Your task to perform on an android device: turn on bluetooth scan Image 0: 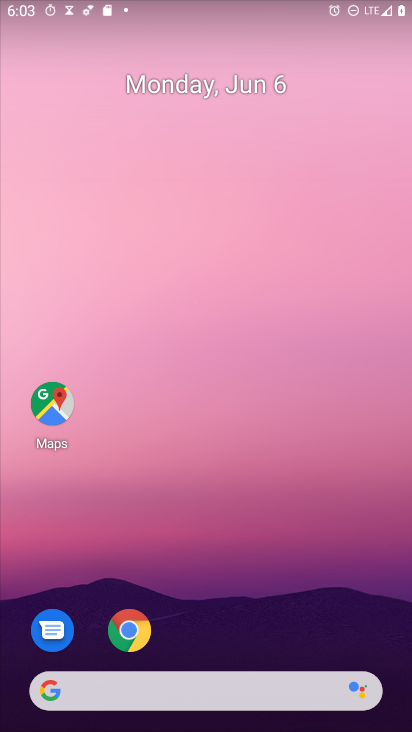
Step 0: drag from (256, 115) to (236, 37)
Your task to perform on an android device: turn on bluetooth scan Image 1: 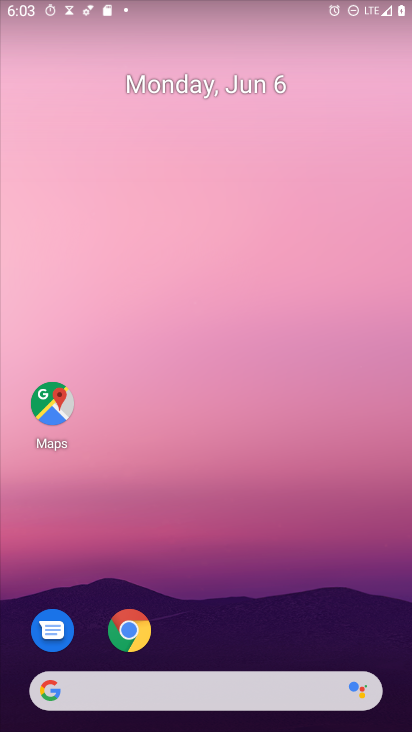
Step 1: drag from (251, 599) to (111, 15)
Your task to perform on an android device: turn on bluetooth scan Image 2: 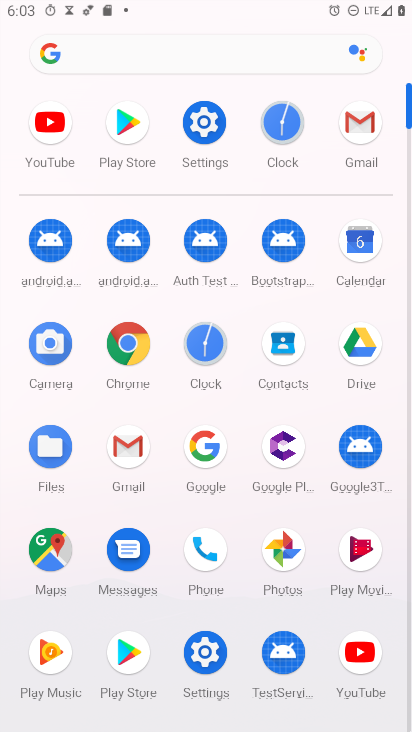
Step 2: click (203, 125)
Your task to perform on an android device: turn on bluetooth scan Image 3: 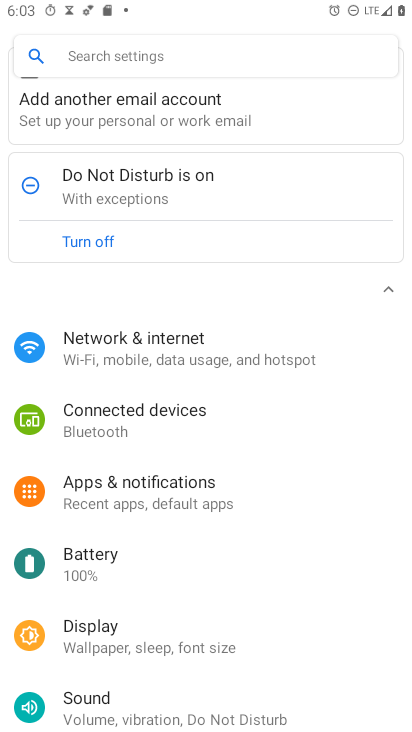
Step 3: drag from (223, 600) to (313, 4)
Your task to perform on an android device: turn on bluetooth scan Image 4: 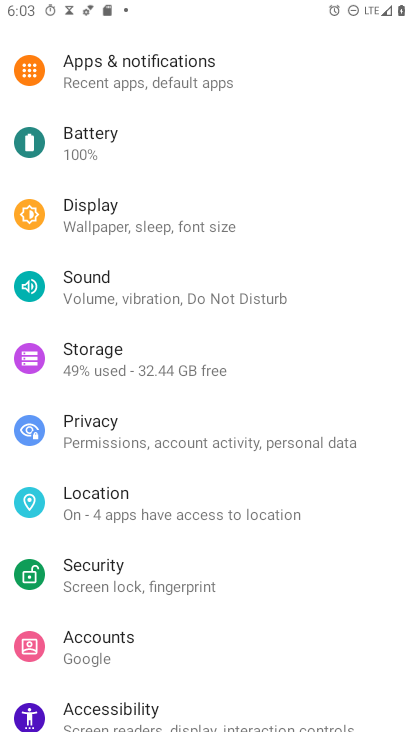
Step 4: click (194, 495)
Your task to perform on an android device: turn on bluetooth scan Image 5: 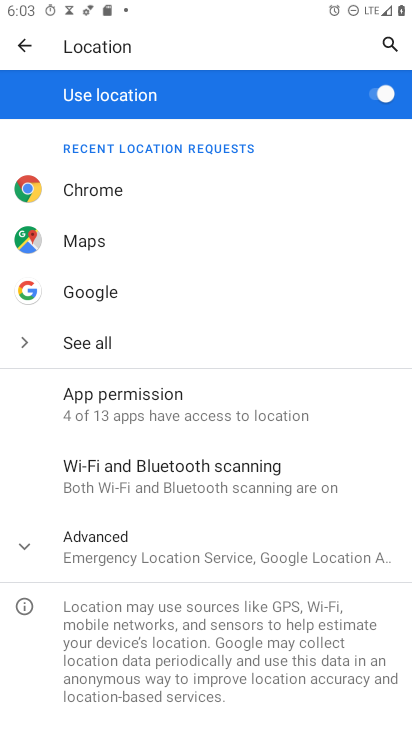
Step 5: click (223, 483)
Your task to perform on an android device: turn on bluetooth scan Image 6: 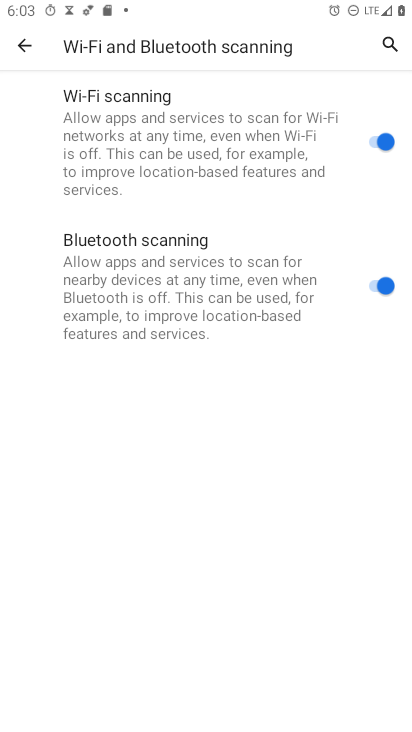
Step 6: task complete